Your task to perform on an android device: Go to display settings Image 0: 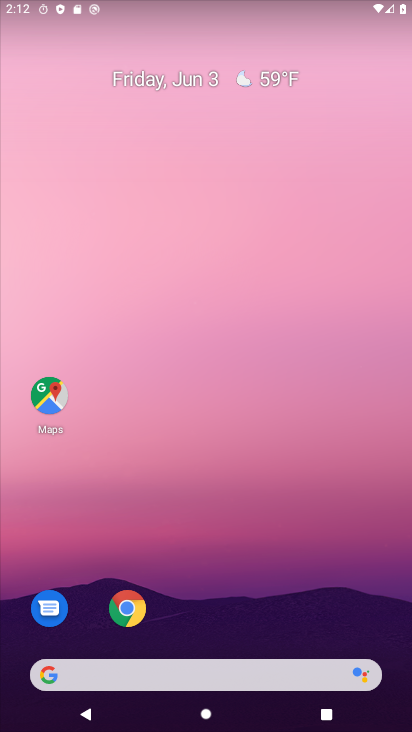
Step 0: drag from (232, 668) to (200, 5)
Your task to perform on an android device: Go to display settings Image 1: 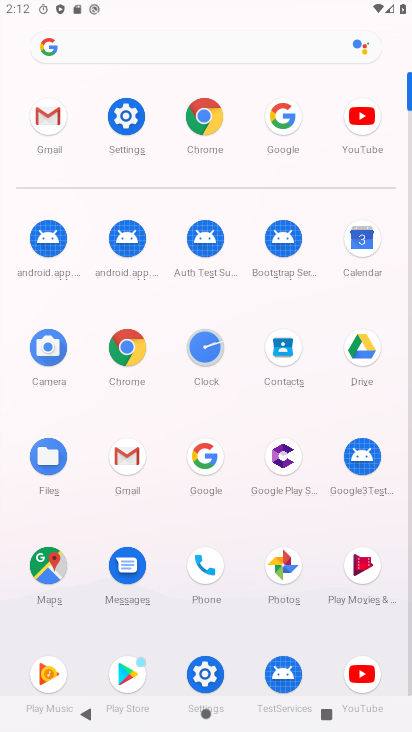
Step 1: click (130, 122)
Your task to perform on an android device: Go to display settings Image 2: 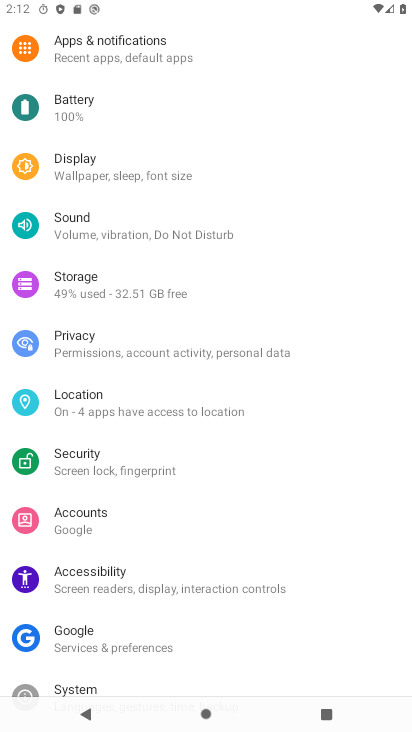
Step 2: click (80, 163)
Your task to perform on an android device: Go to display settings Image 3: 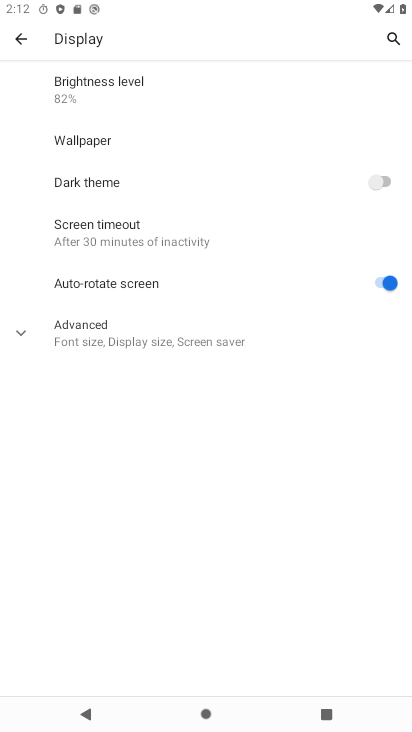
Step 3: task complete